Your task to perform on an android device: turn on sleep mode Image 0: 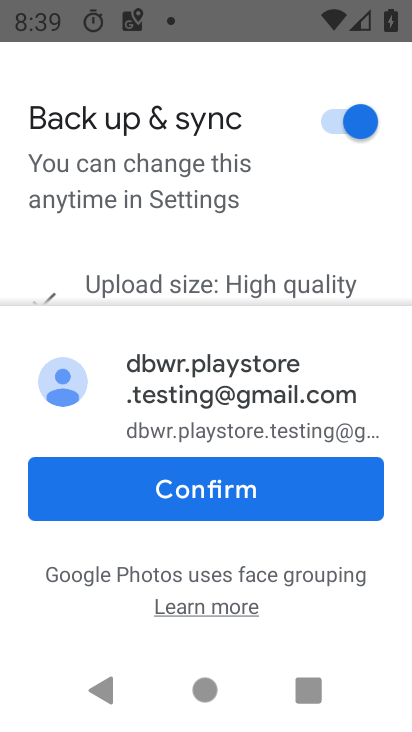
Step 0: press home button
Your task to perform on an android device: turn on sleep mode Image 1: 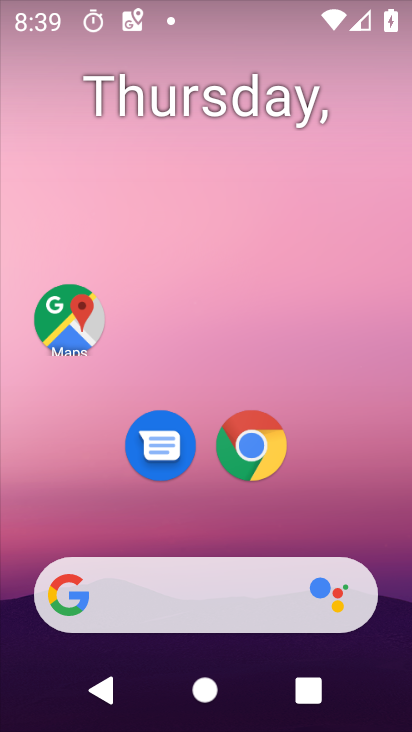
Step 1: drag from (107, 427) to (203, 210)
Your task to perform on an android device: turn on sleep mode Image 2: 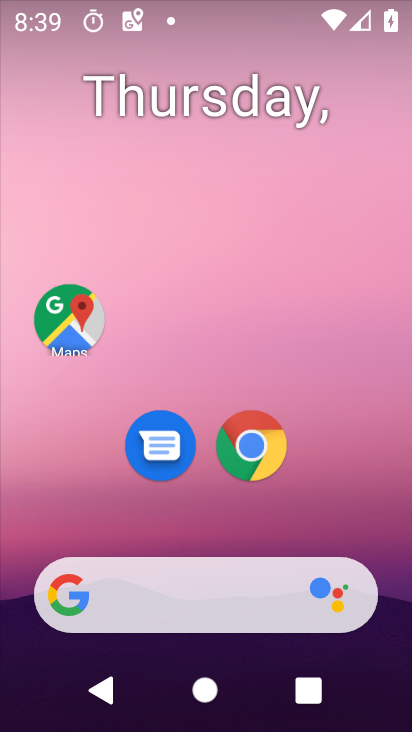
Step 2: drag from (43, 586) to (213, 188)
Your task to perform on an android device: turn on sleep mode Image 3: 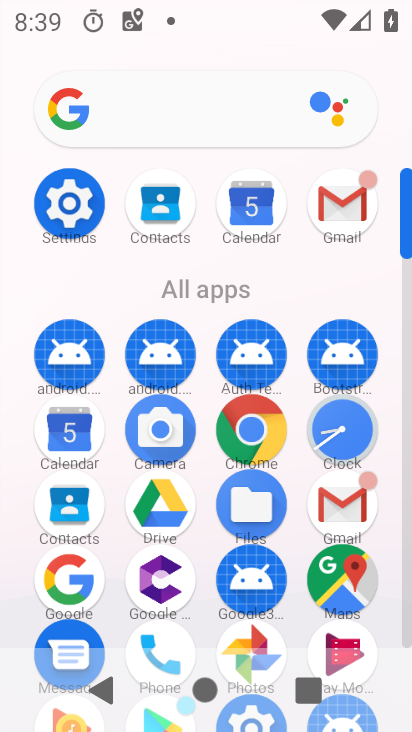
Step 3: click (97, 215)
Your task to perform on an android device: turn on sleep mode Image 4: 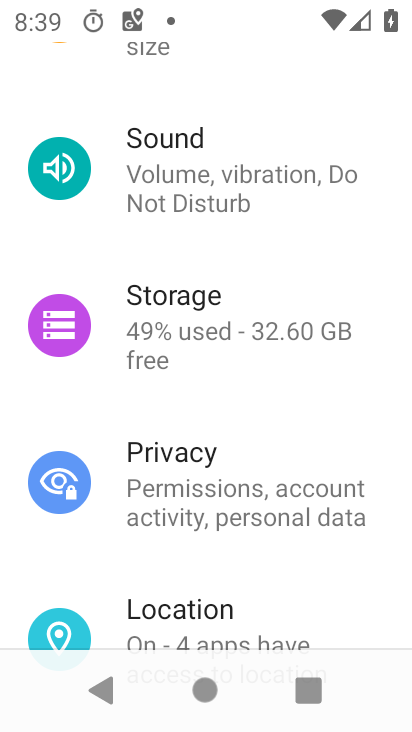
Step 4: drag from (243, 242) to (254, 511)
Your task to perform on an android device: turn on sleep mode Image 5: 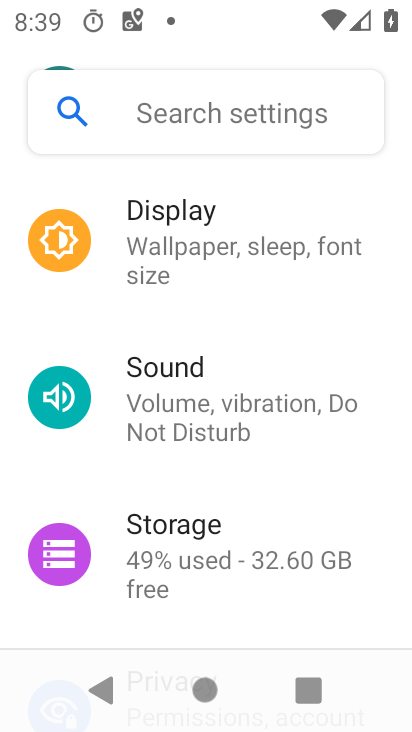
Step 5: click (269, 260)
Your task to perform on an android device: turn on sleep mode Image 6: 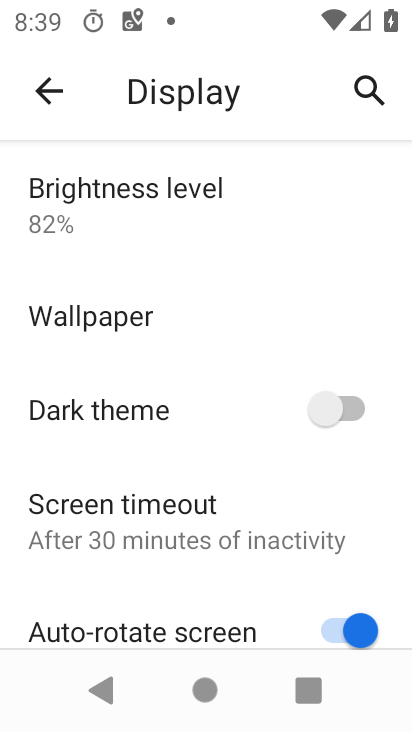
Step 6: task complete